Your task to perform on an android device: Is it going to rain tomorrow? Image 0: 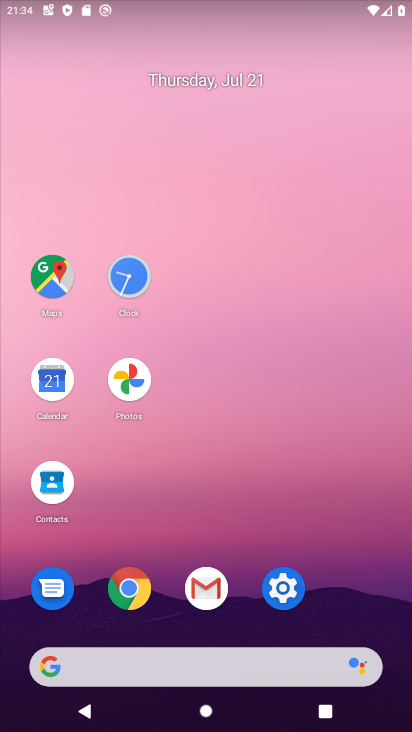
Step 0: click (221, 668)
Your task to perform on an android device: Is it going to rain tomorrow? Image 1: 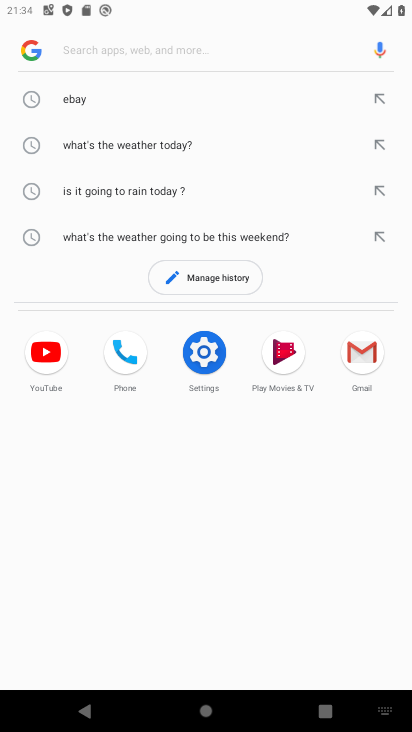
Step 1: click (117, 187)
Your task to perform on an android device: Is it going to rain tomorrow? Image 2: 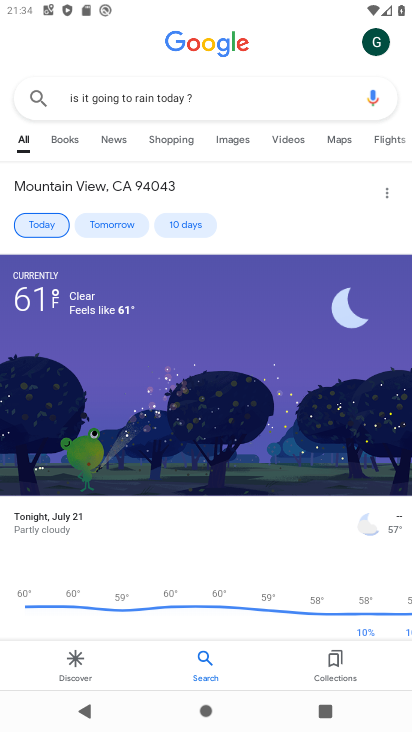
Step 2: click (114, 215)
Your task to perform on an android device: Is it going to rain tomorrow? Image 3: 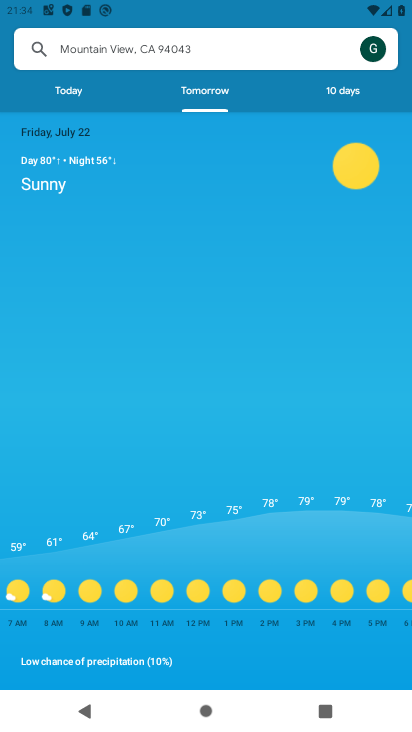
Step 3: task complete